Your task to perform on an android device: turn off location Image 0: 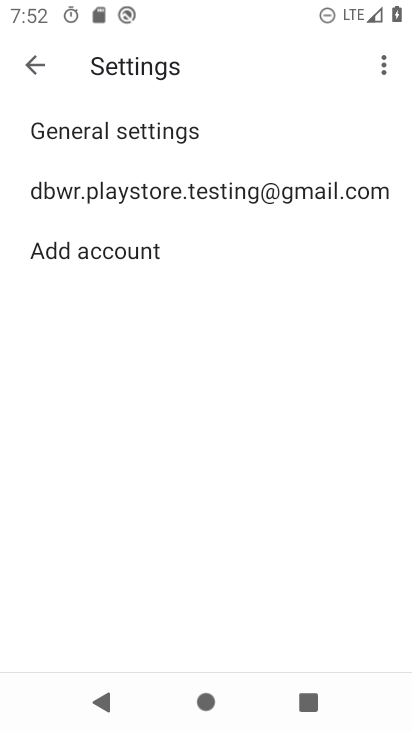
Step 0: press home button
Your task to perform on an android device: turn off location Image 1: 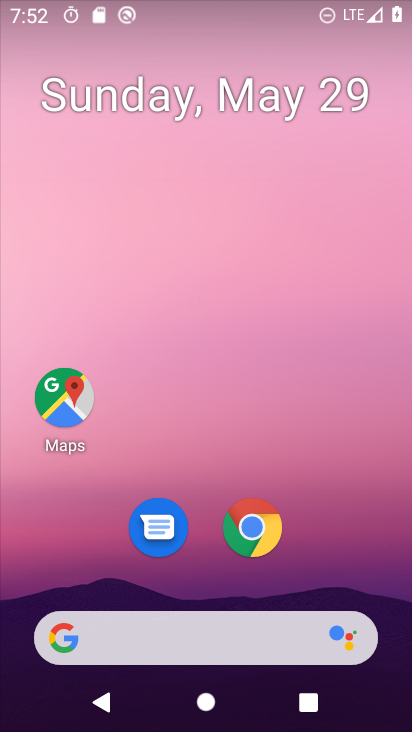
Step 1: drag from (397, 627) to (242, 10)
Your task to perform on an android device: turn off location Image 2: 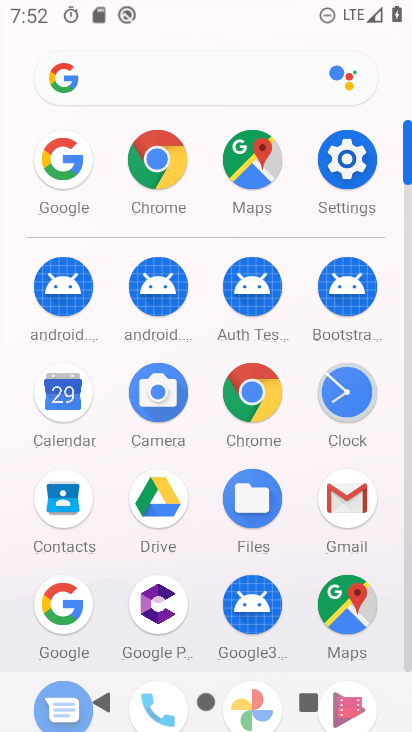
Step 2: click (355, 154)
Your task to perform on an android device: turn off location Image 3: 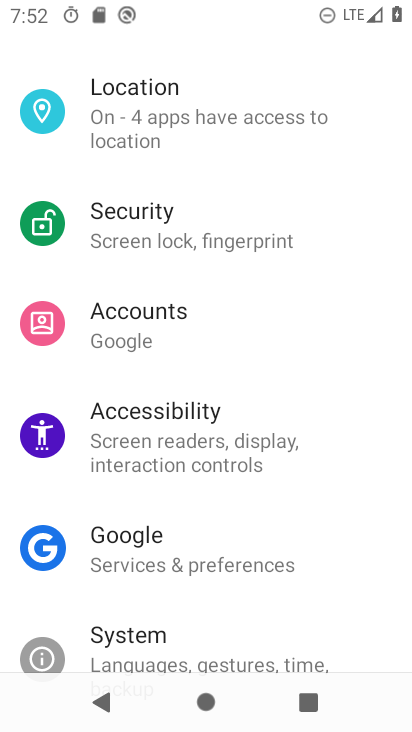
Step 3: click (211, 133)
Your task to perform on an android device: turn off location Image 4: 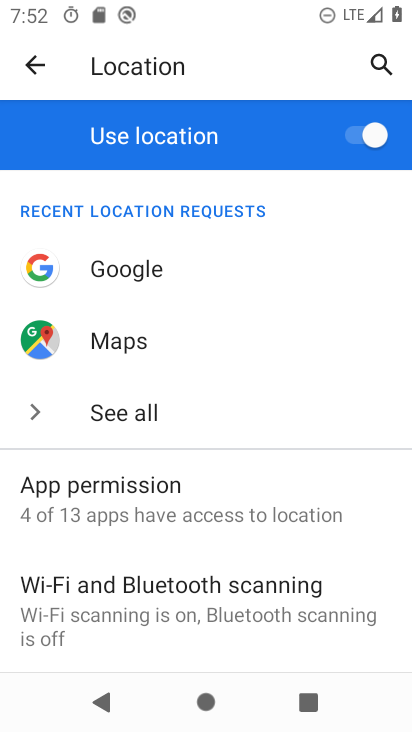
Step 4: click (343, 126)
Your task to perform on an android device: turn off location Image 5: 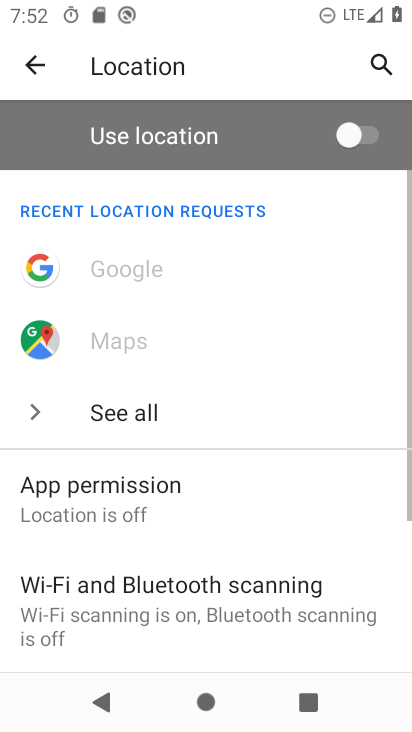
Step 5: task complete